Your task to perform on an android device: open app "Airtel Thanks" (install if not already installed), go to login, and select forgot password Image 0: 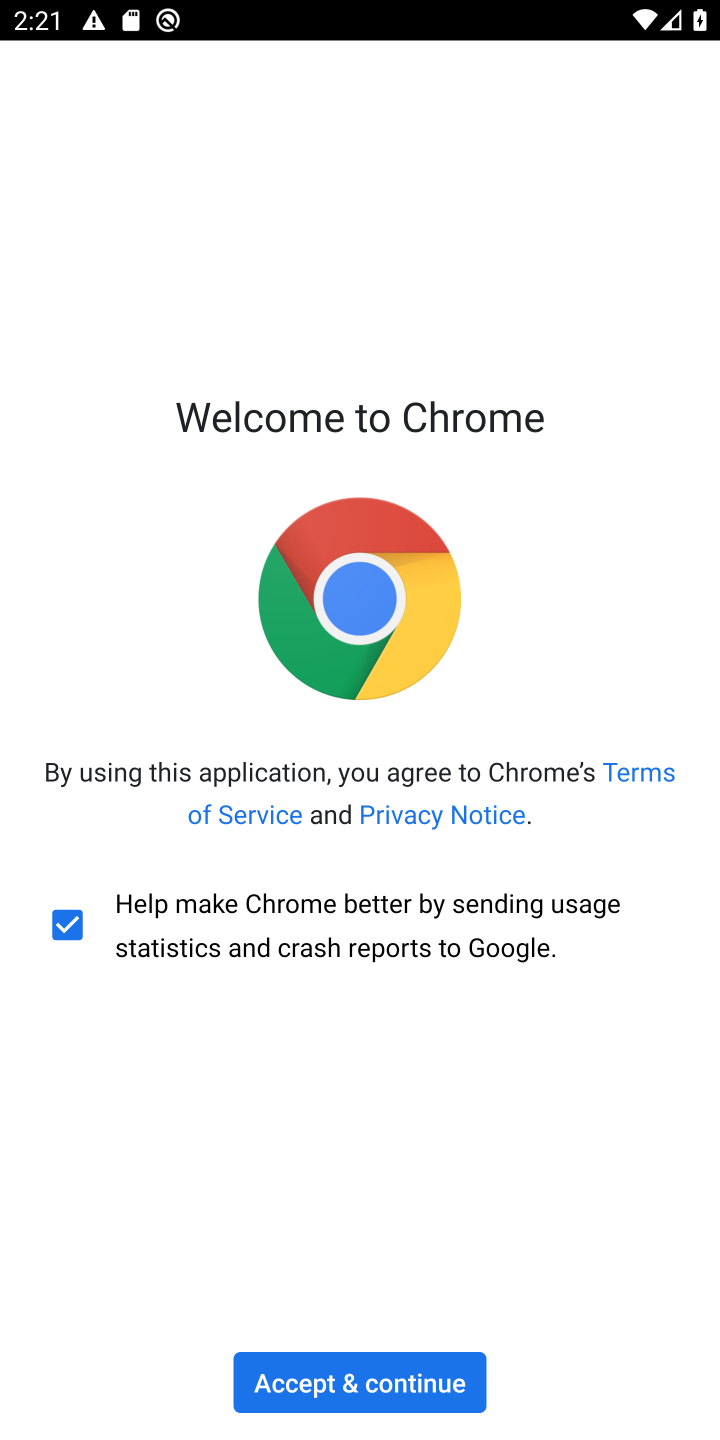
Step 0: press home button
Your task to perform on an android device: open app "Airtel Thanks" (install if not already installed), go to login, and select forgot password Image 1: 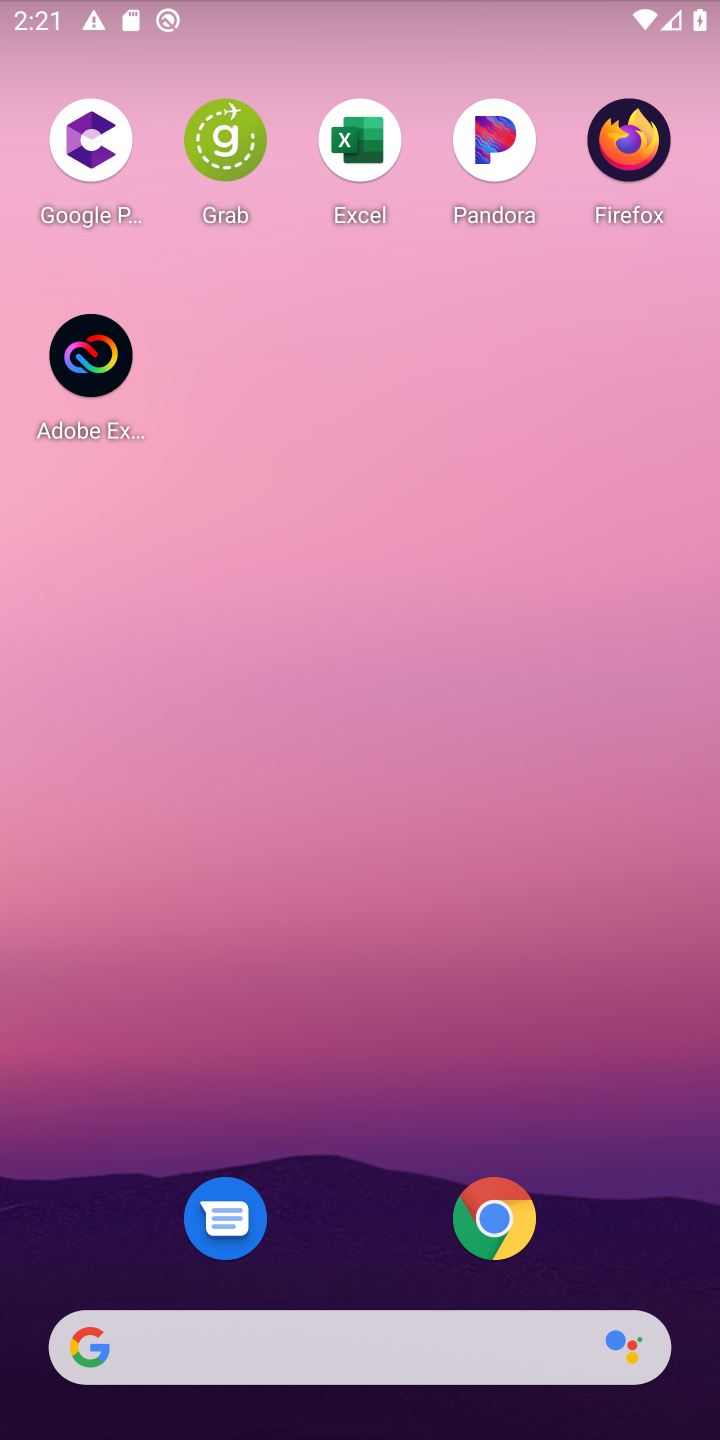
Step 1: drag from (364, 1203) to (382, 432)
Your task to perform on an android device: open app "Airtel Thanks" (install if not already installed), go to login, and select forgot password Image 2: 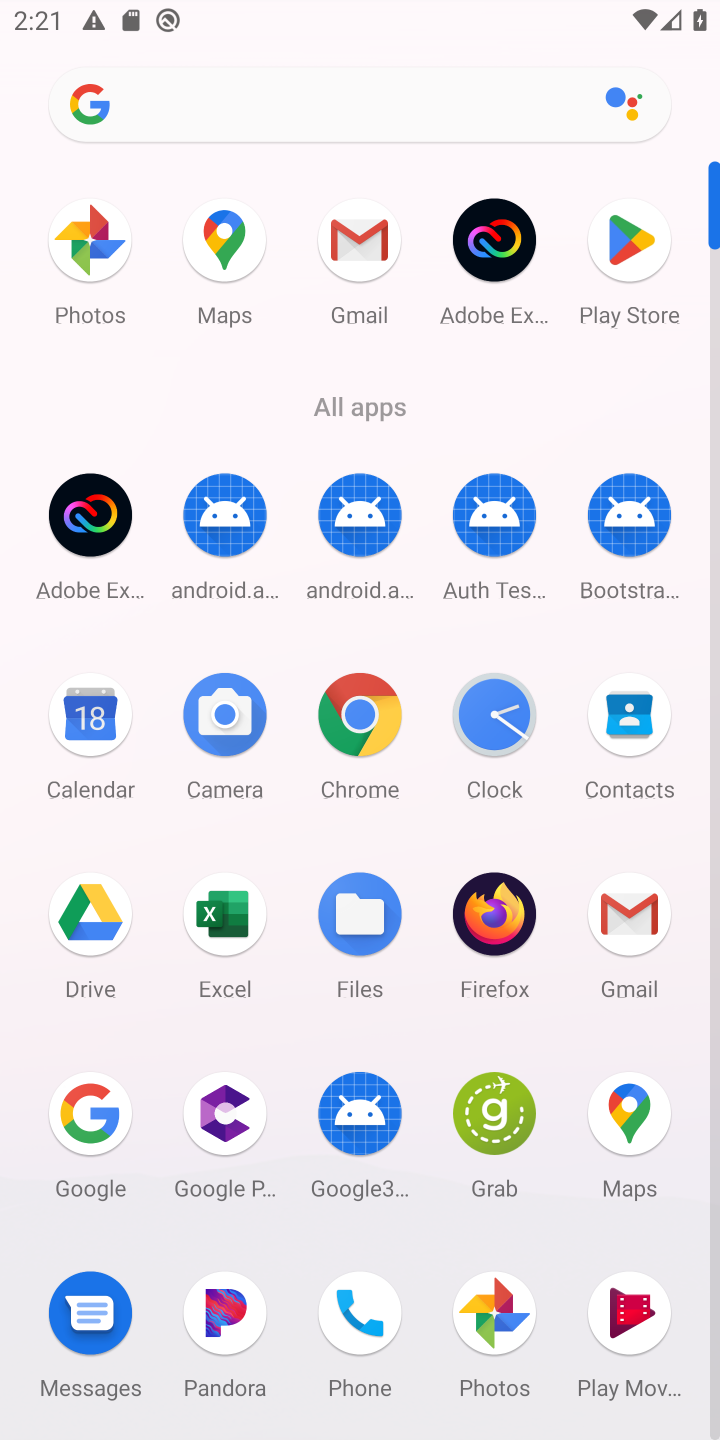
Step 2: click (631, 236)
Your task to perform on an android device: open app "Airtel Thanks" (install if not already installed), go to login, and select forgot password Image 3: 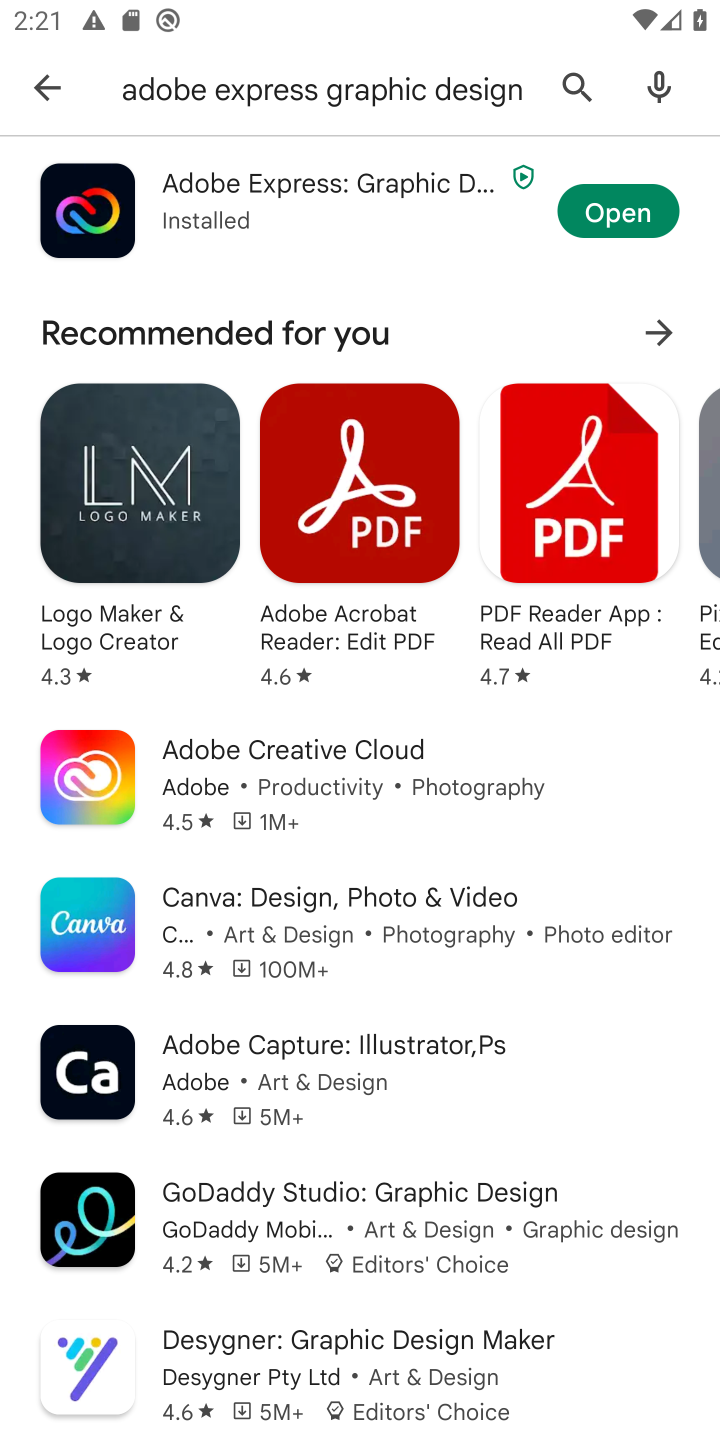
Step 3: click (566, 67)
Your task to perform on an android device: open app "Airtel Thanks" (install if not already installed), go to login, and select forgot password Image 4: 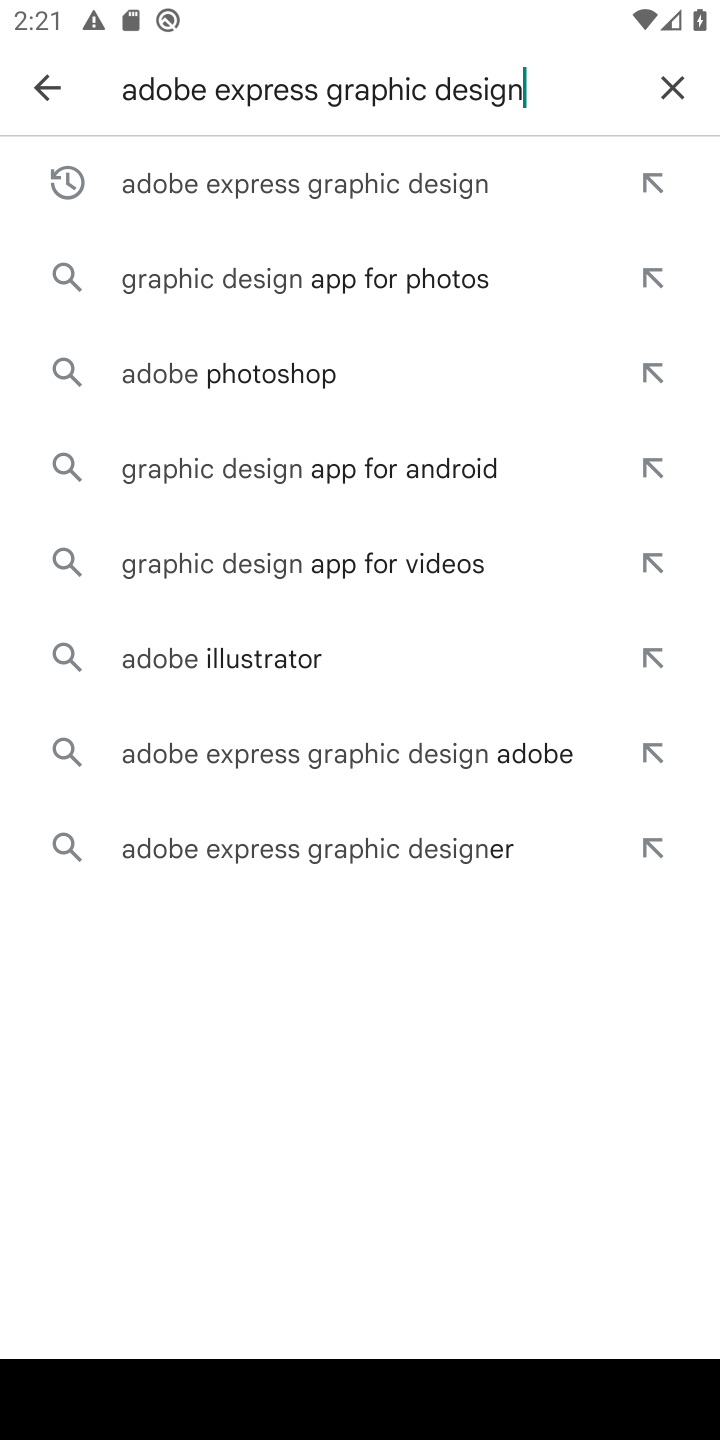
Step 4: click (682, 77)
Your task to perform on an android device: open app "Airtel Thanks" (install if not already installed), go to login, and select forgot password Image 5: 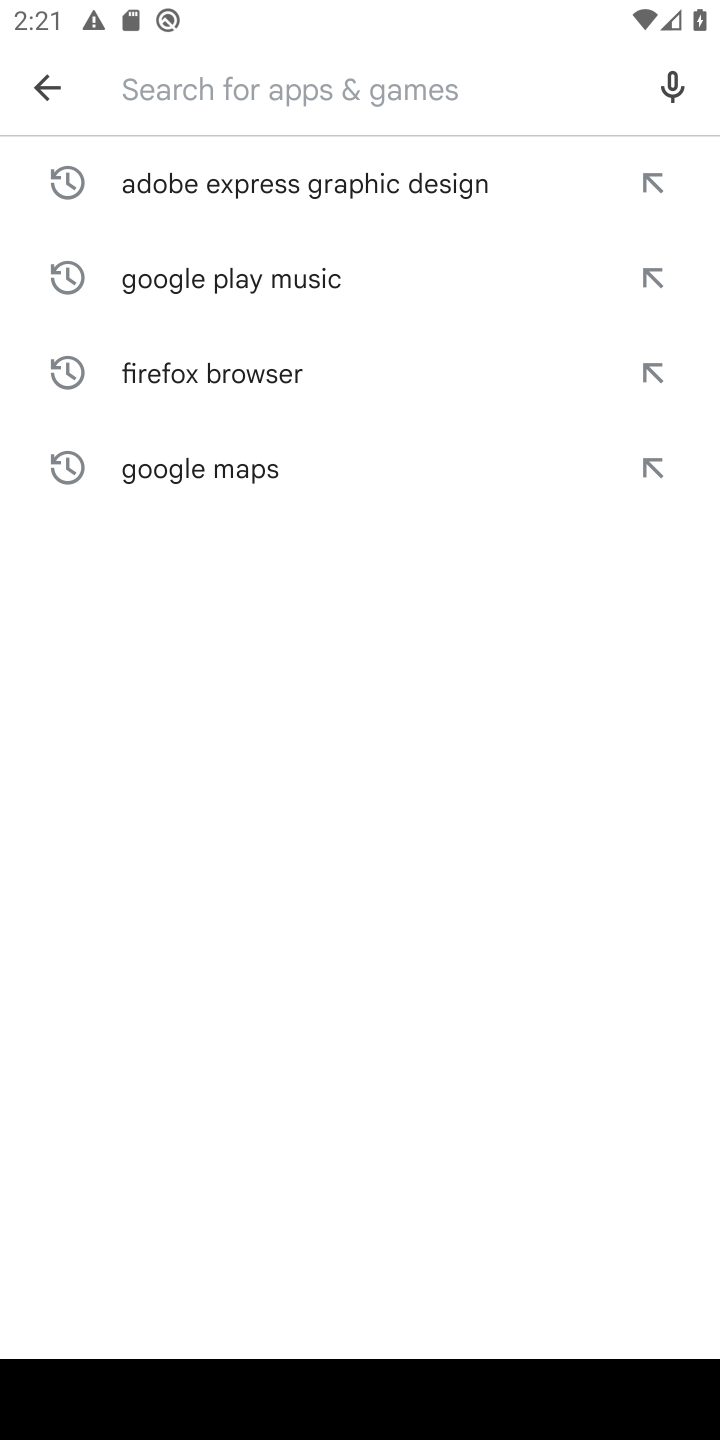
Step 5: type "Airtel Thanks"
Your task to perform on an android device: open app "Airtel Thanks" (install if not already installed), go to login, and select forgot password Image 6: 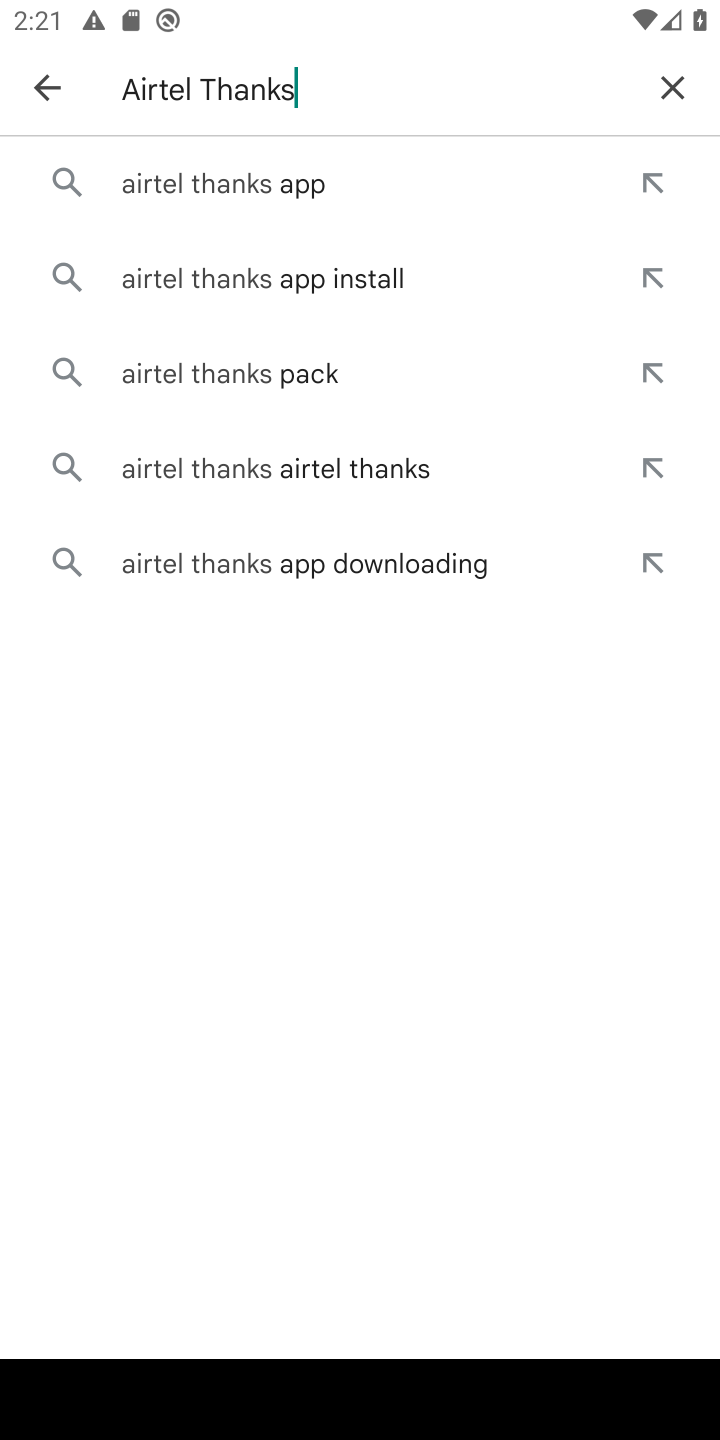
Step 6: click (279, 194)
Your task to perform on an android device: open app "Airtel Thanks" (install if not already installed), go to login, and select forgot password Image 7: 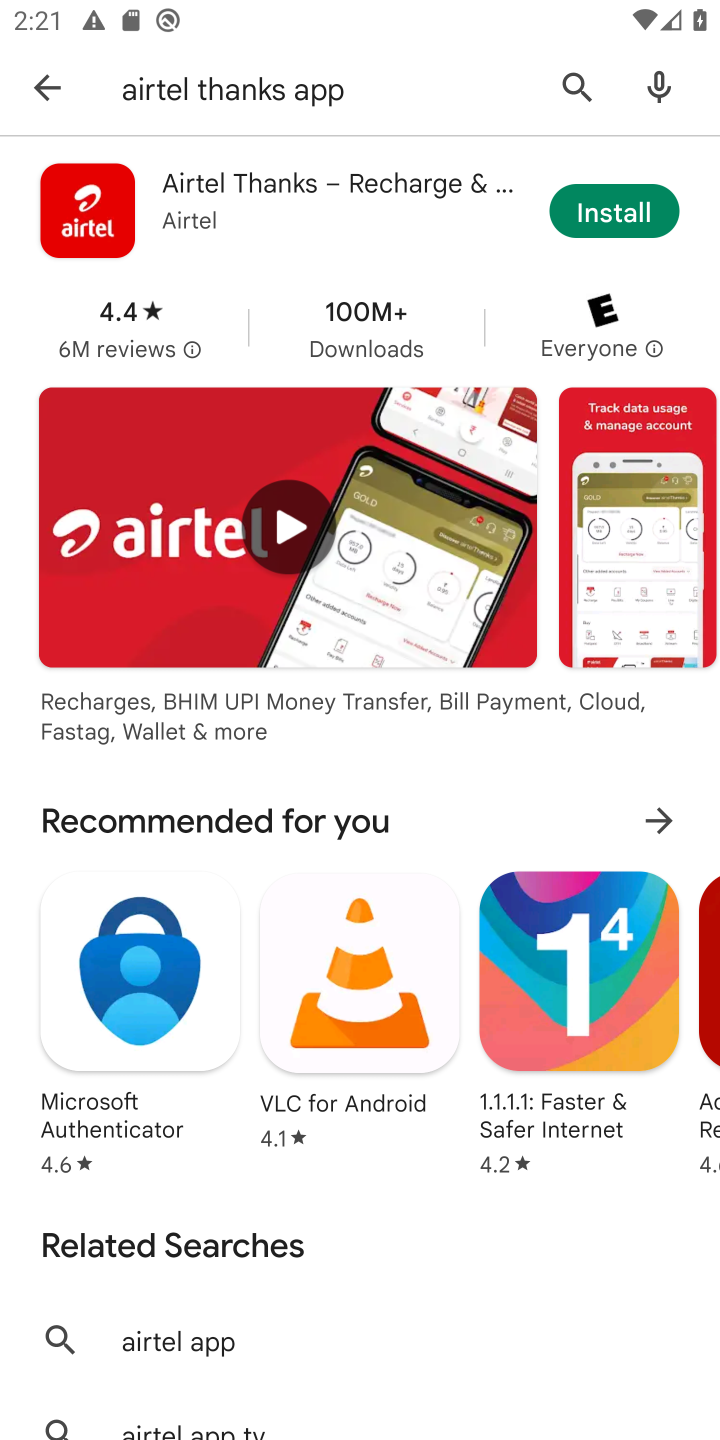
Step 7: click (595, 207)
Your task to perform on an android device: open app "Airtel Thanks" (install if not already installed), go to login, and select forgot password Image 8: 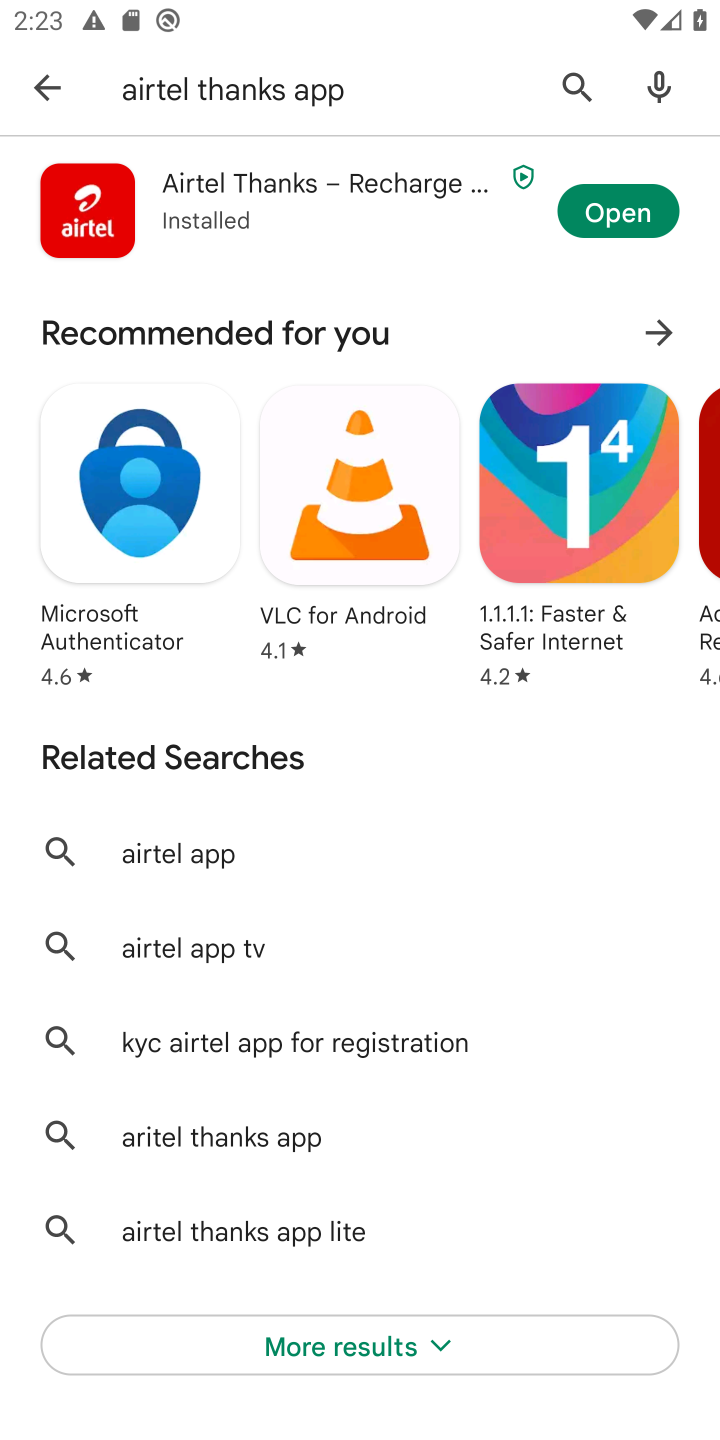
Step 8: click (594, 201)
Your task to perform on an android device: open app "Airtel Thanks" (install if not already installed), go to login, and select forgot password Image 9: 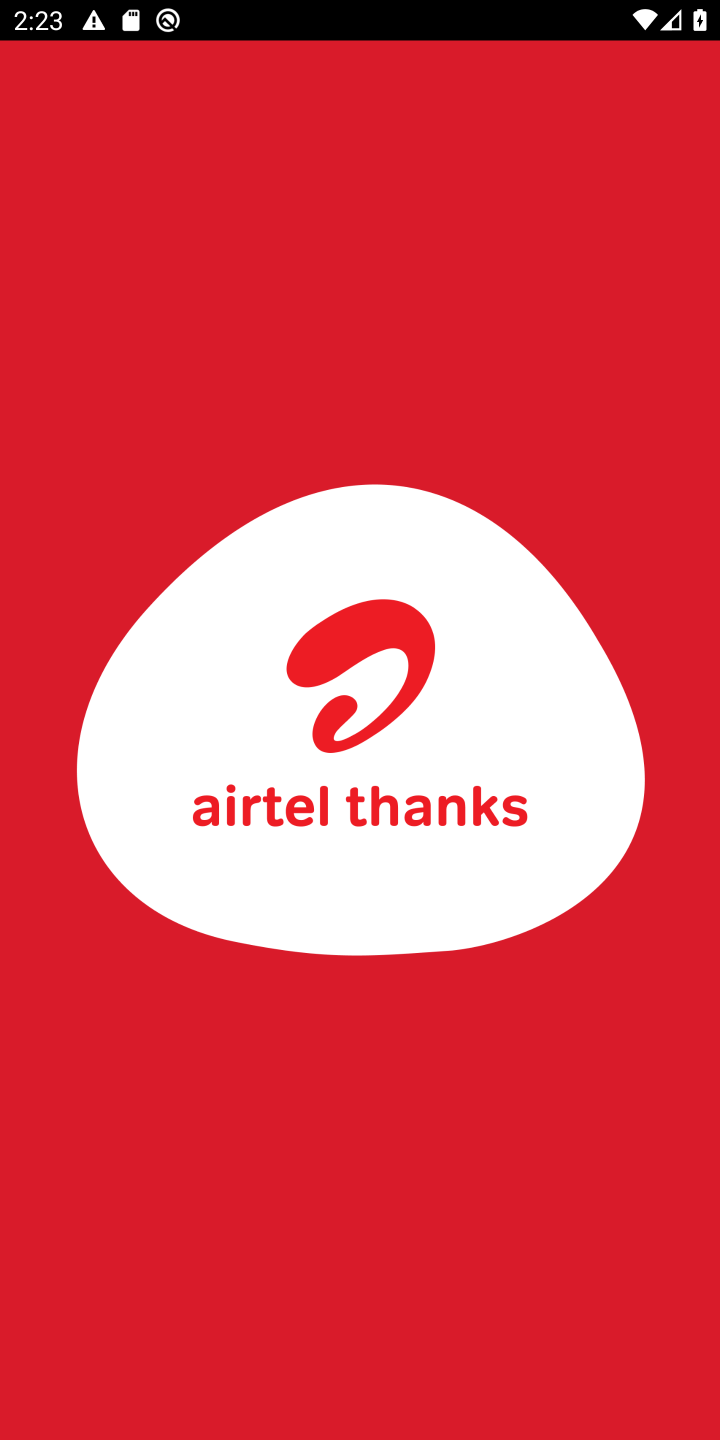
Step 9: click (615, 222)
Your task to perform on an android device: open app "Airtel Thanks" (install if not already installed), go to login, and select forgot password Image 10: 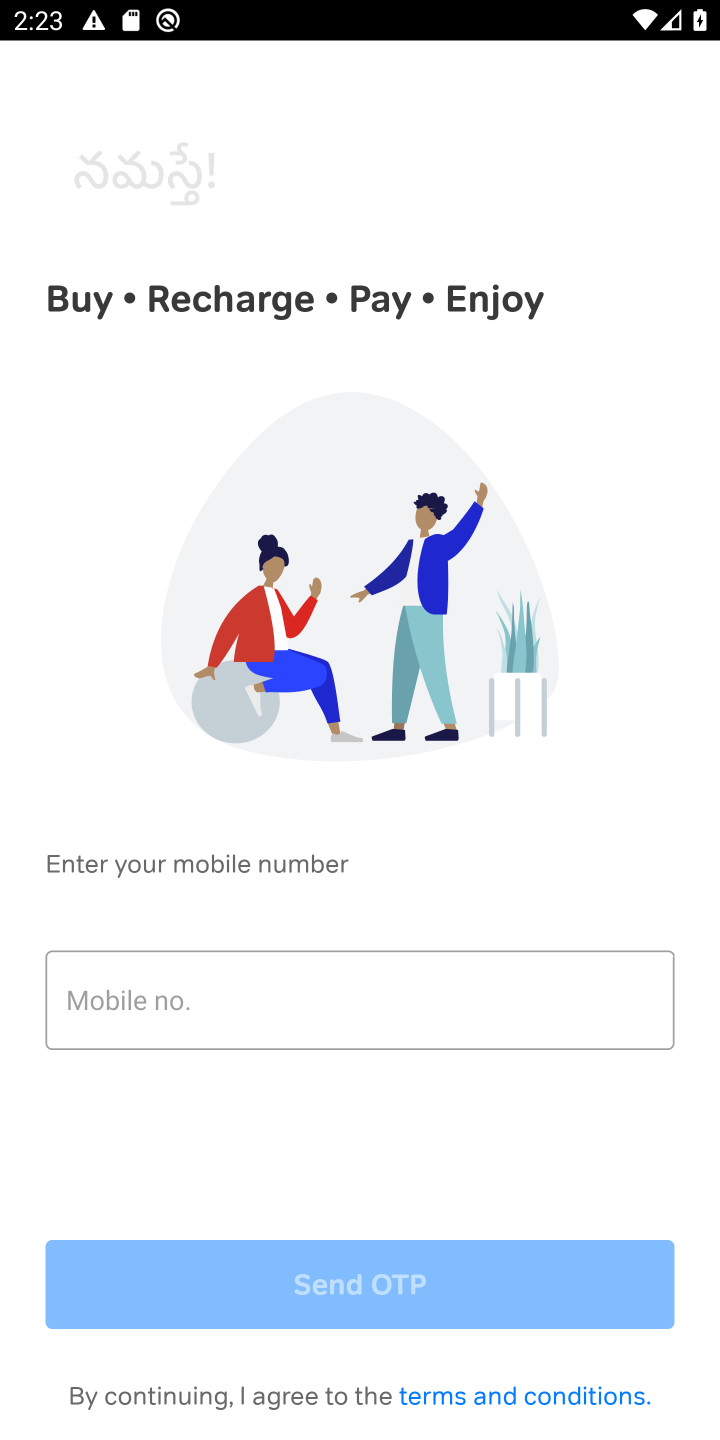
Step 10: task complete